Your task to perform on an android device: turn on wifi Image 0: 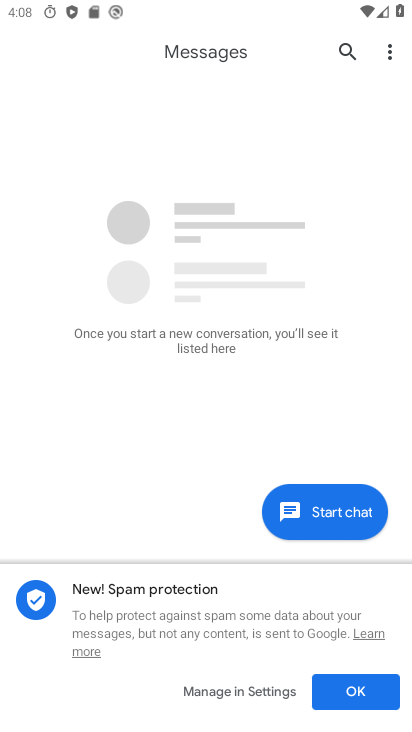
Step 0: press home button
Your task to perform on an android device: turn on wifi Image 1: 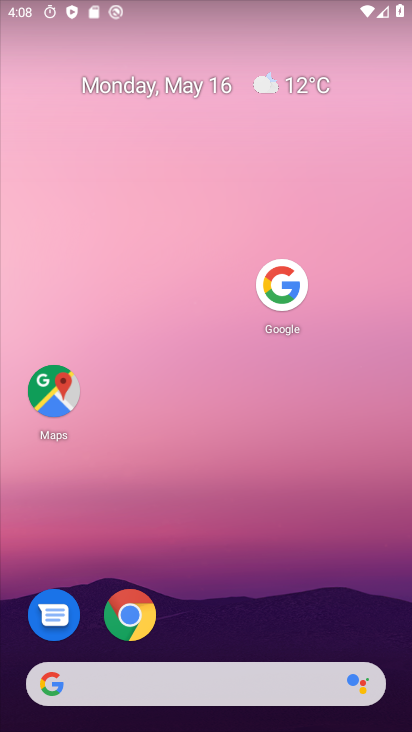
Step 1: drag from (181, 656) to (328, 14)
Your task to perform on an android device: turn on wifi Image 2: 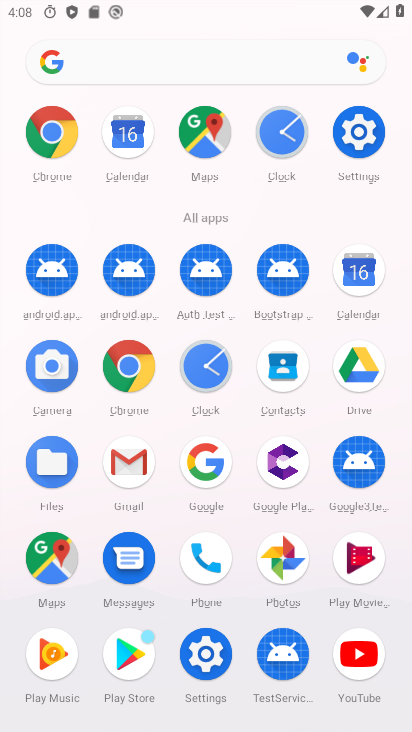
Step 2: click (352, 143)
Your task to perform on an android device: turn on wifi Image 3: 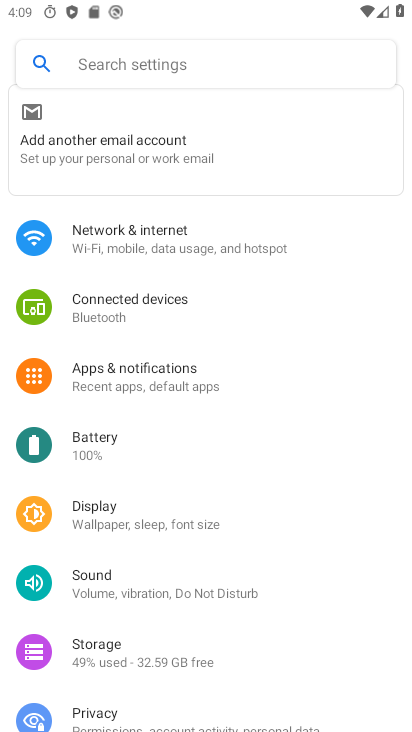
Step 3: click (136, 253)
Your task to perform on an android device: turn on wifi Image 4: 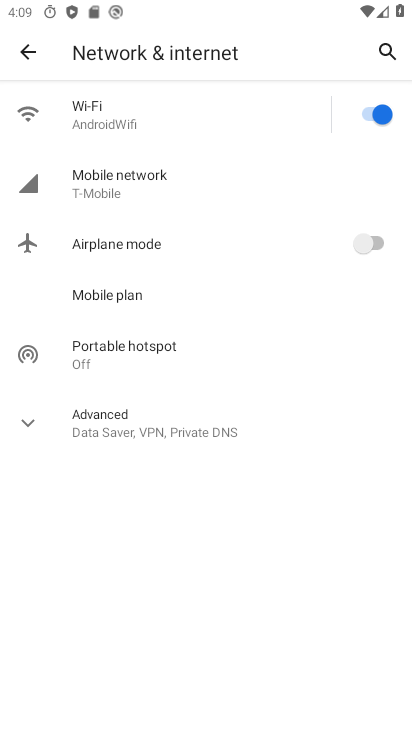
Step 4: click (139, 99)
Your task to perform on an android device: turn on wifi Image 5: 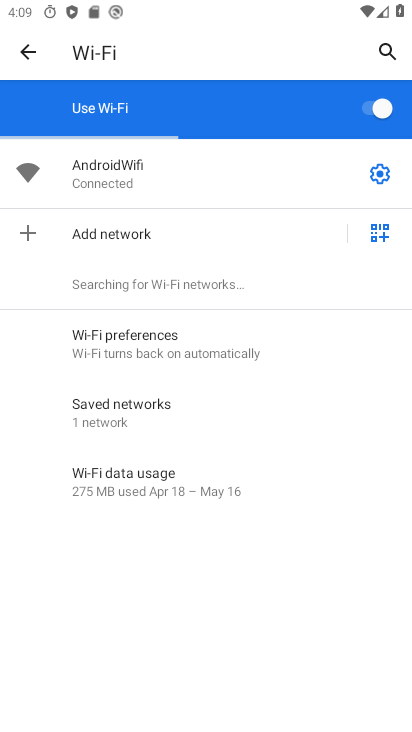
Step 5: task complete